Your task to perform on an android device: add a contact in the contacts app Image 0: 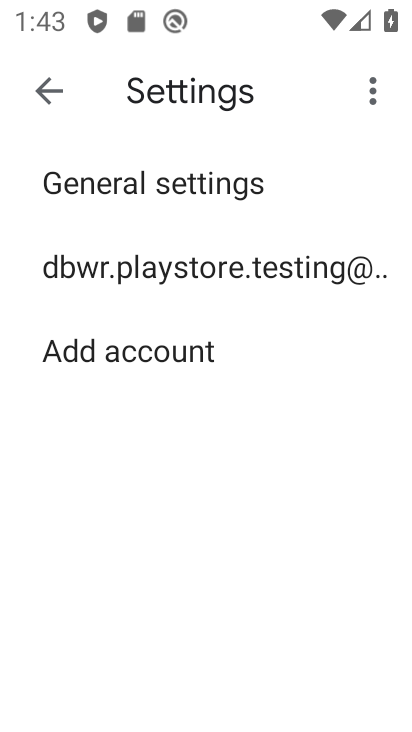
Step 0: press back button
Your task to perform on an android device: add a contact in the contacts app Image 1: 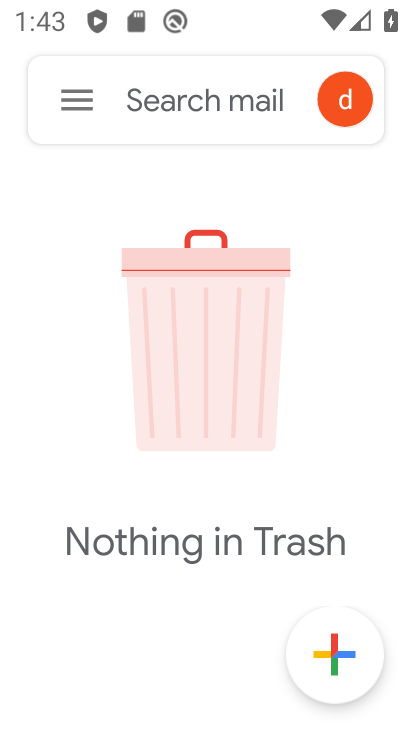
Step 1: press back button
Your task to perform on an android device: add a contact in the contacts app Image 2: 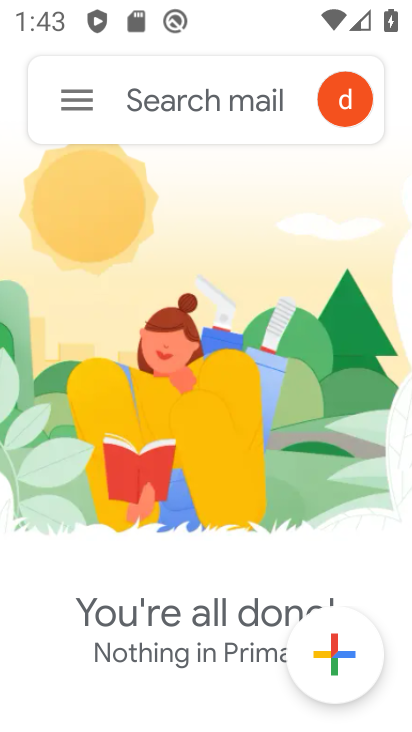
Step 2: press home button
Your task to perform on an android device: add a contact in the contacts app Image 3: 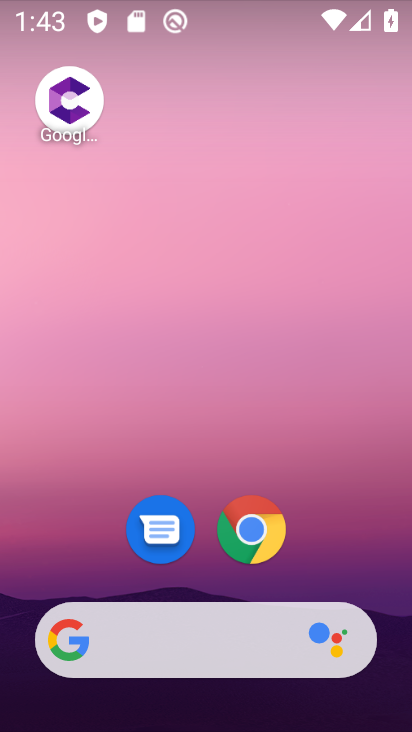
Step 3: drag from (22, 596) to (282, 35)
Your task to perform on an android device: add a contact in the contacts app Image 4: 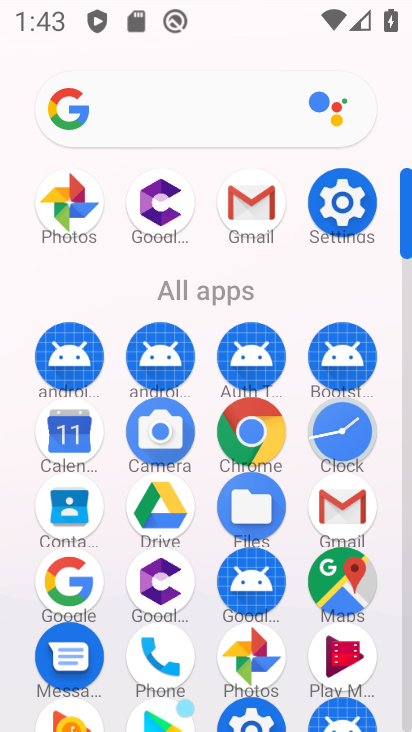
Step 4: click (147, 638)
Your task to perform on an android device: add a contact in the contacts app Image 5: 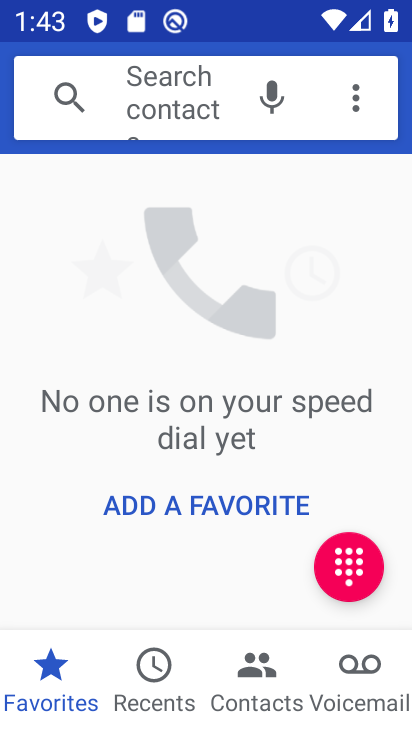
Step 5: click (253, 675)
Your task to perform on an android device: add a contact in the contacts app Image 6: 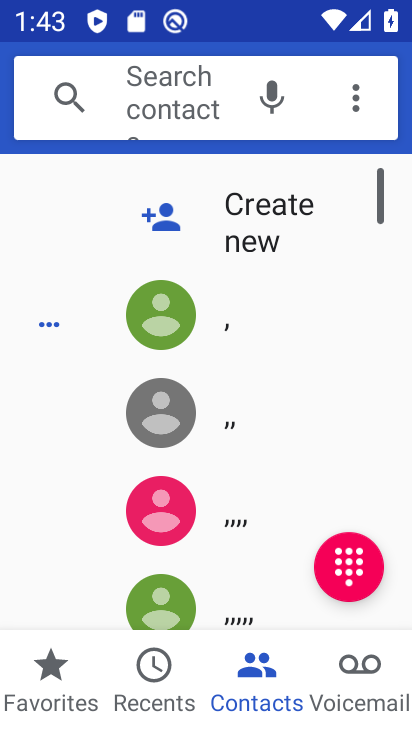
Step 6: click (189, 207)
Your task to perform on an android device: add a contact in the contacts app Image 7: 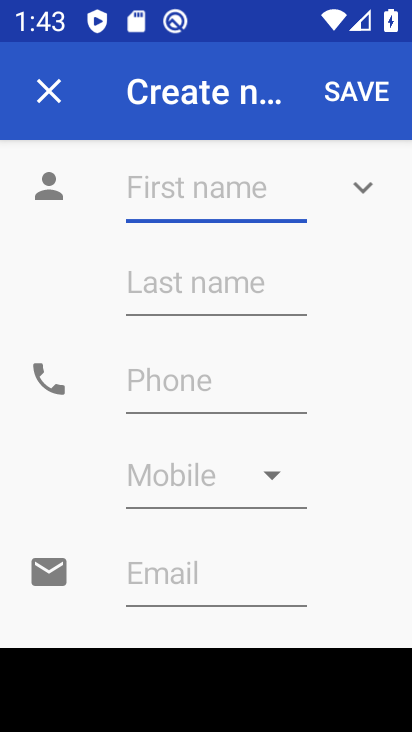
Step 7: click (189, 206)
Your task to perform on an android device: add a contact in the contacts app Image 8: 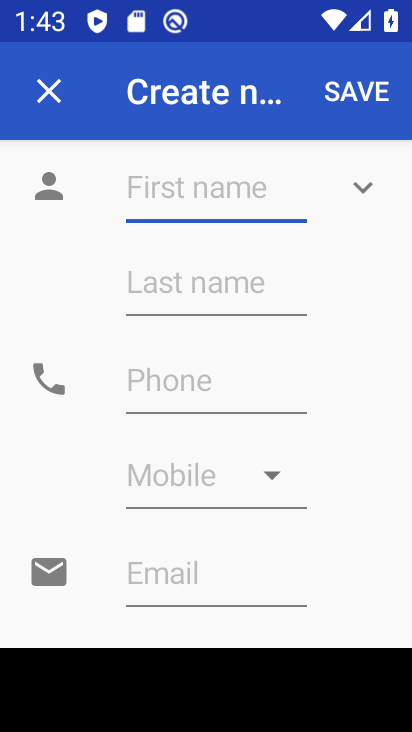
Step 8: type "bghvfdsa"
Your task to perform on an android device: add a contact in the contacts app Image 9: 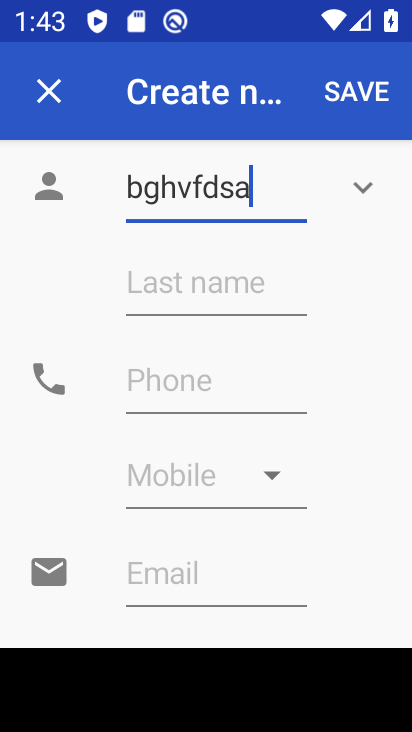
Step 9: type ""
Your task to perform on an android device: add a contact in the contacts app Image 10: 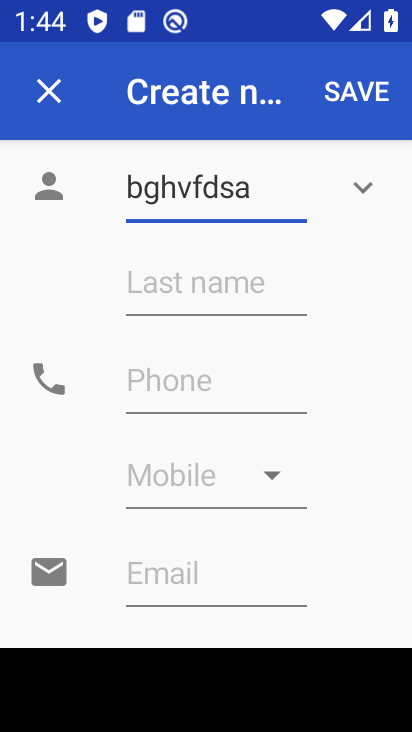
Step 10: click (360, 82)
Your task to perform on an android device: add a contact in the contacts app Image 11: 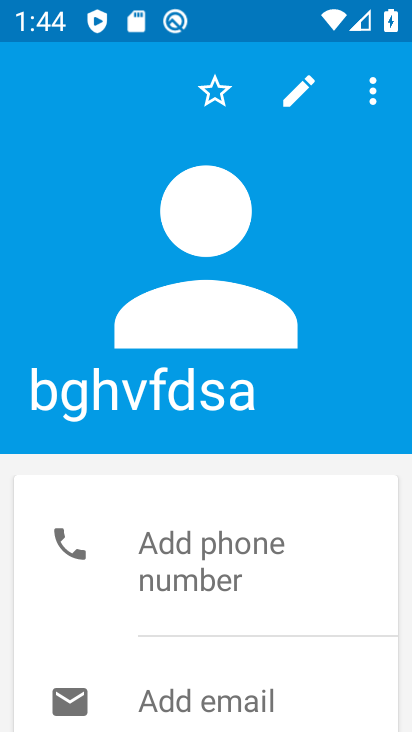
Step 11: task complete